Your task to perform on an android device: open a bookmark in the chrome app Image 0: 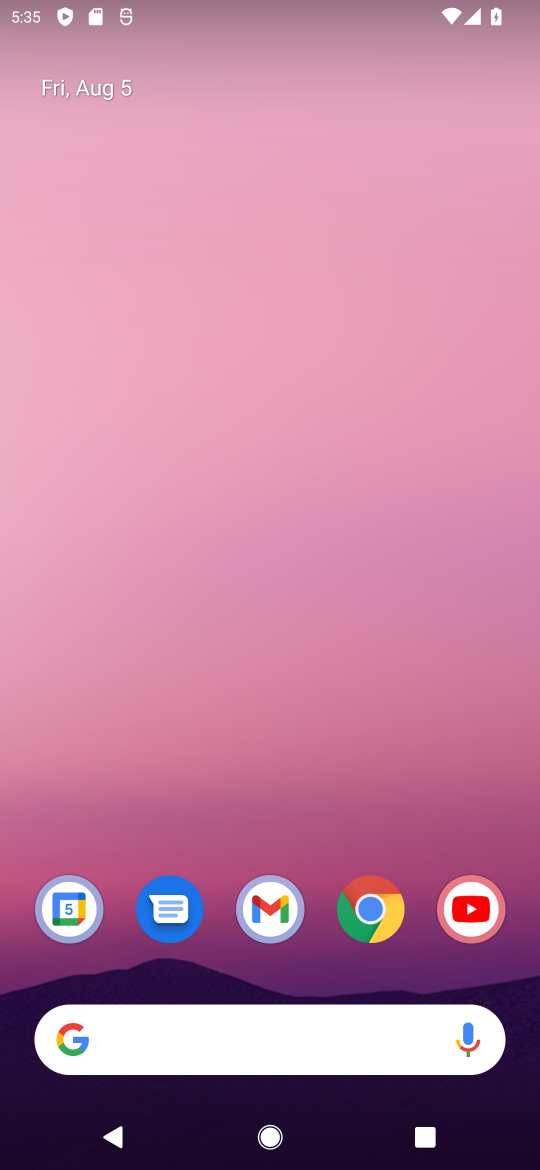
Step 0: press home button
Your task to perform on an android device: open a bookmark in the chrome app Image 1: 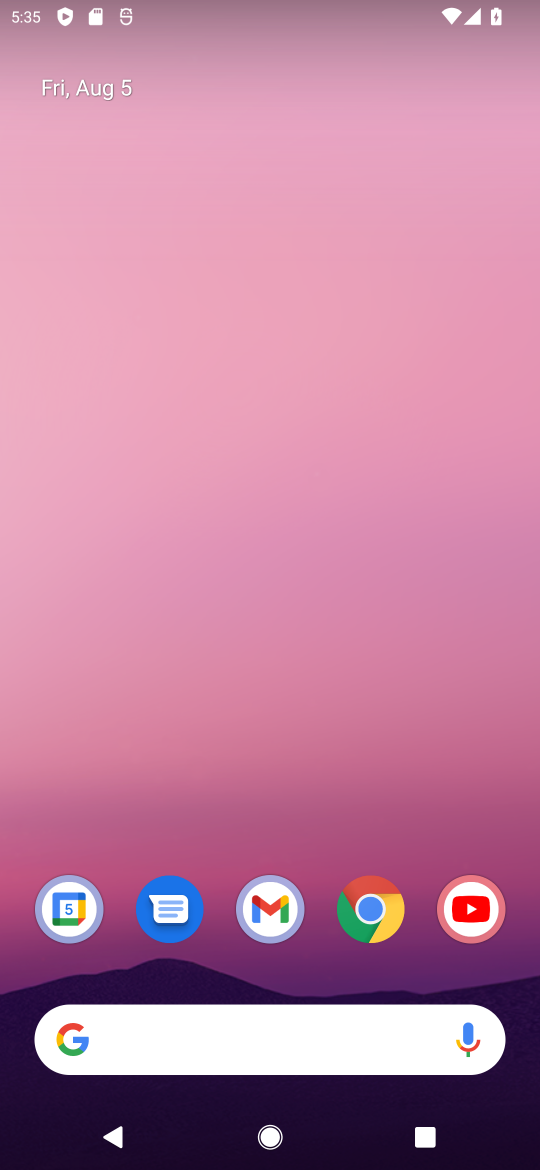
Step 1: click (374, 904)
Your task to perform on an android device: open a bookmark in the chrome app Image 2: 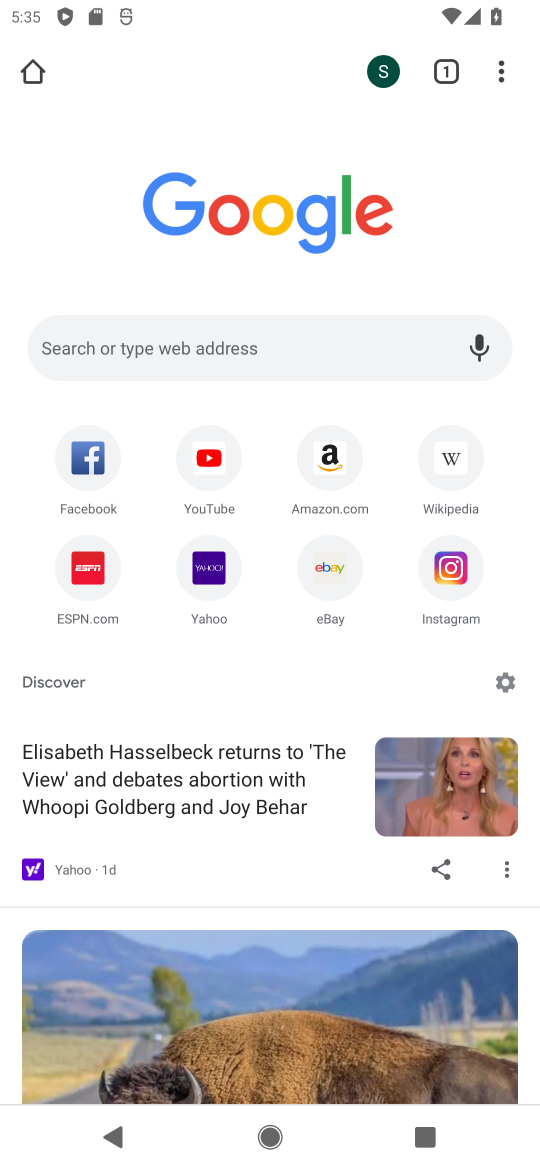
Step 2: task complete